Your task to perform on an android device: What's on my calendar tomorrow? Image 0: 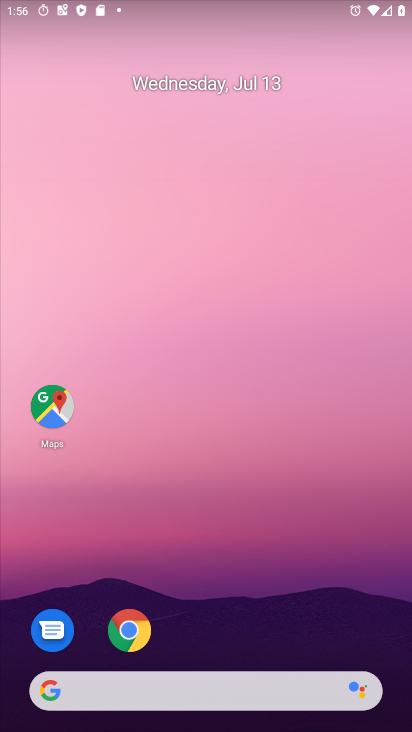
Step 0: drag from (307, 596) to (348, 141)
Your task to perform on an android device: What's on my calendar tomorrow? Image 1: 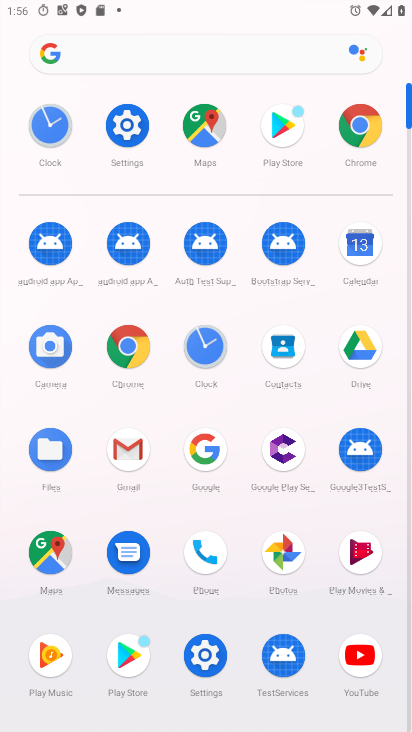
Step 1: click (364, 255)
Your task to perform on an android device: What's on my calendar tomorrow? Image 2: 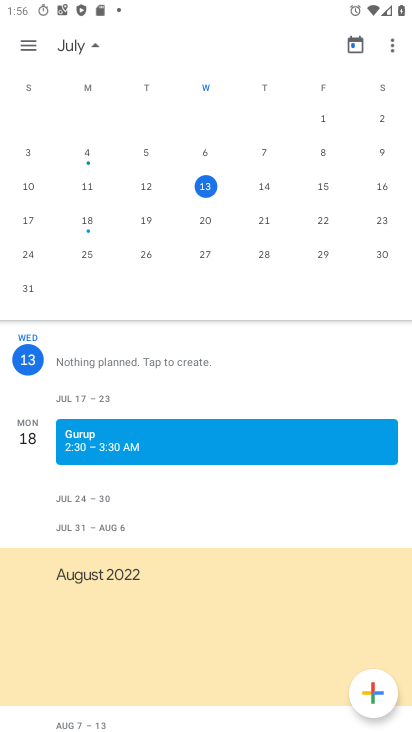
Step 2: click (268, 187)
Your task to perform on an android device: What's on my calendar tomorrow? Image 3: 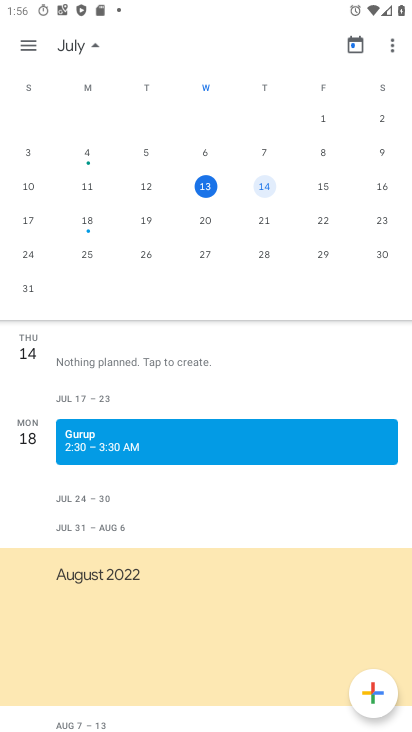
Step 3: task complete